Your task to perform on an android device: Open wifi settings Image 0: 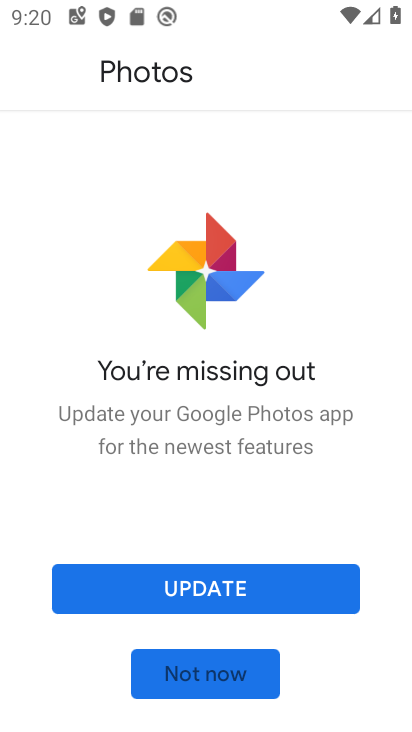
Step 0: press home button
Your task to perform on an android device: Open wifi settings Image 1: 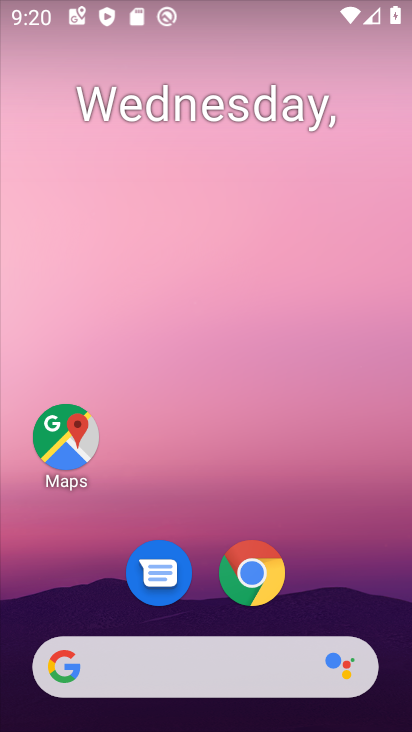
Step 1: drag from (358, 450) to (336, 44)
Your task to perform on an android device: Open wifi settings Image 2: 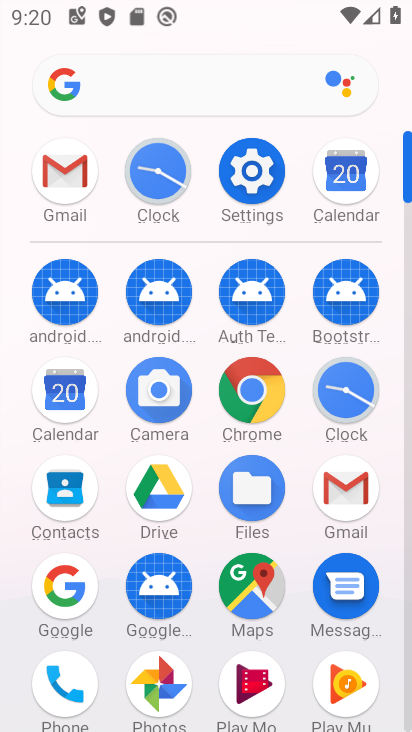
Step 2: click (261, 173)
Your task to perform on an android device: Open wifi settings Image 3: 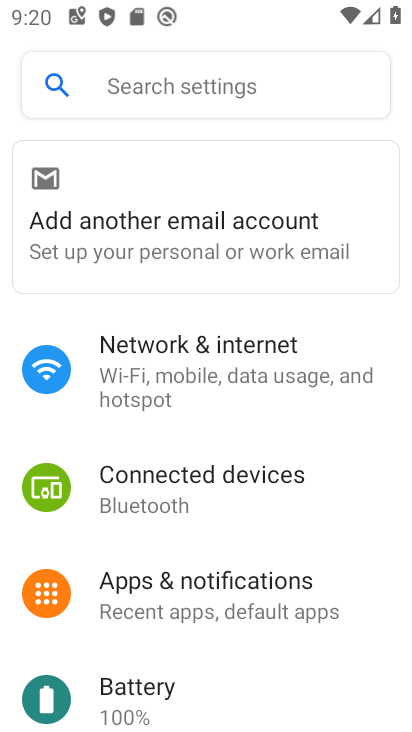
Step 3: click (152, 362)
Your task to perform on an android device: Open wifi settings Image 4: 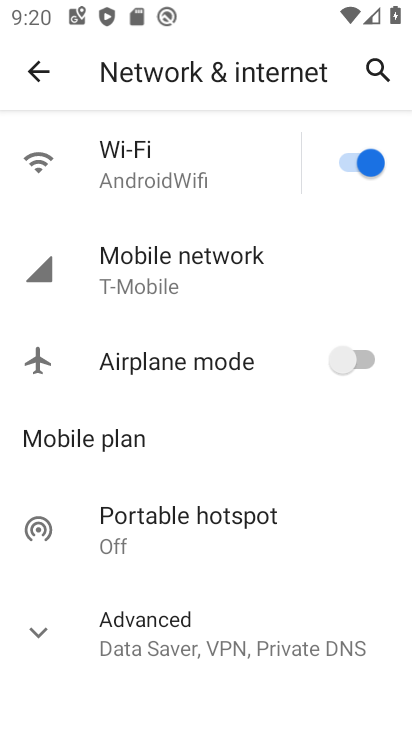
Step 4: task complete